Your task to perform on an android device: Open location settings Image 0: 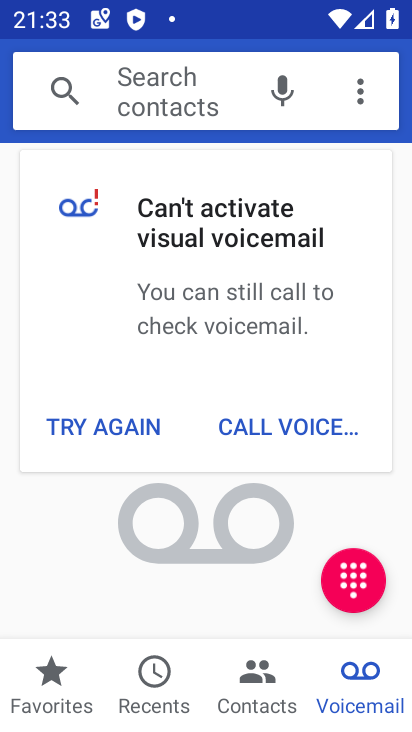
Step 0: press home button
Your task to perform on an android device: Open location settings Image 1: 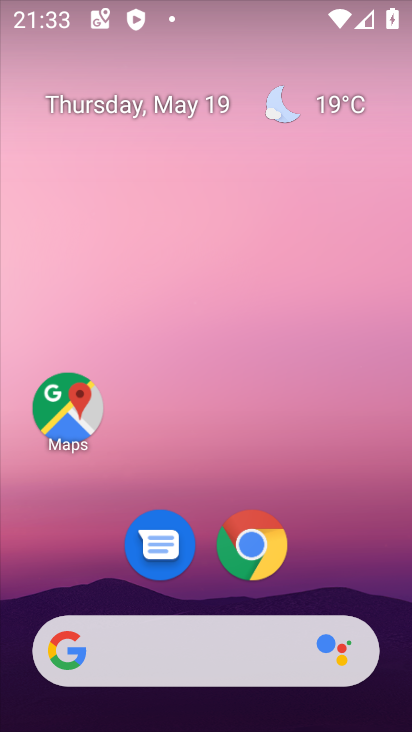
Step 1: drag from (371, 540) to (216, 73)
Your task to perform on an android device: Open location settings Image 2: 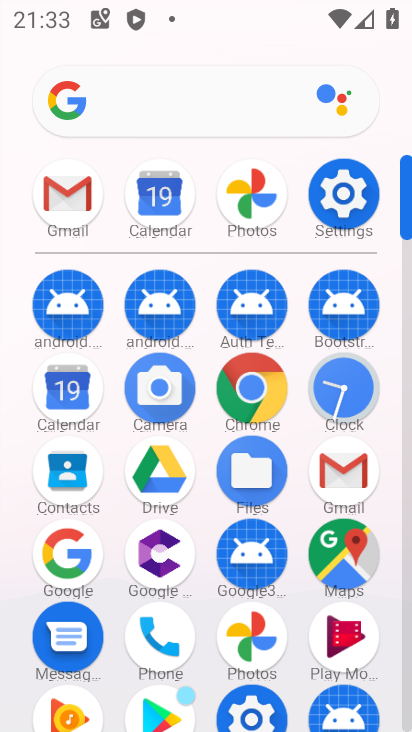
Step 2: click (357, 212)
Your task to perform on an android device: Open location settings Image 3: 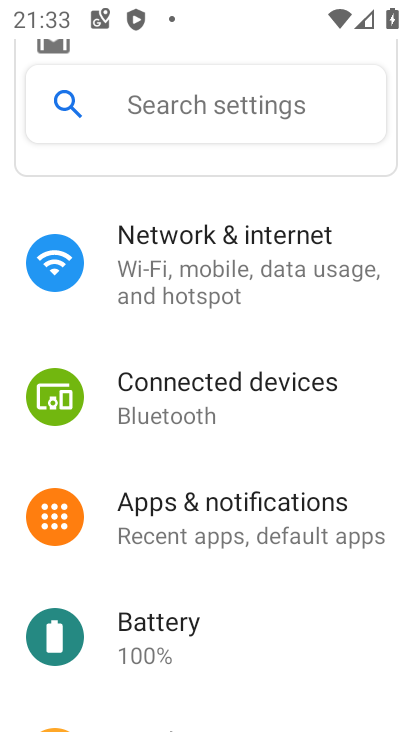
Step 3: drag from (151, 568) to (158, 294)
Your task to perform on an android device: Open location settings Image 4: 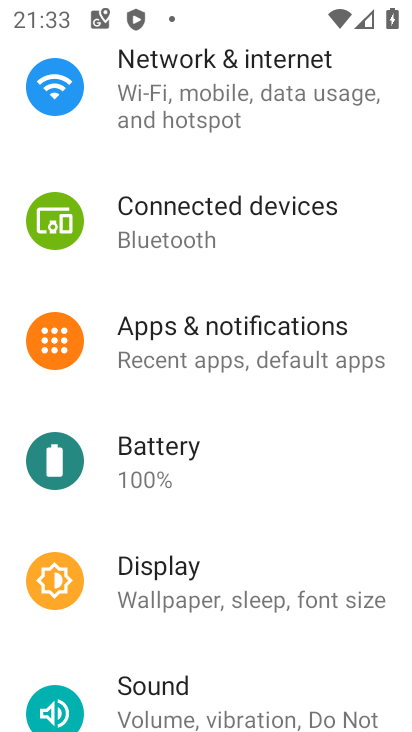
Step 4: drag from (218, 629) to (252, 325)
Your task to perform on an android device: Open location settings Image 5: 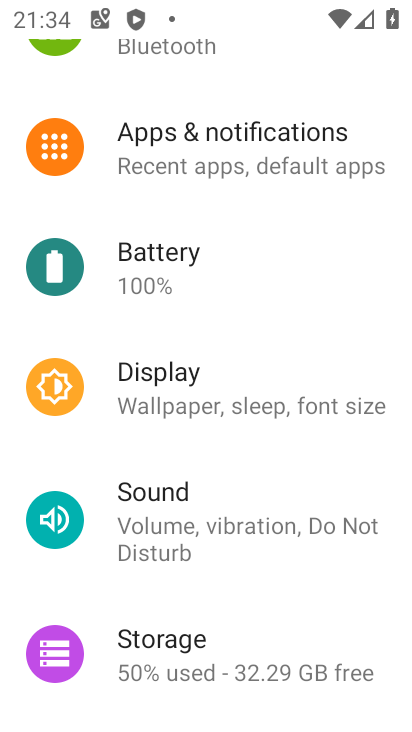
Step 5: drag from (229, 696) to (237, 418)
Your task to perform on an android device: Open location settings Image 6: 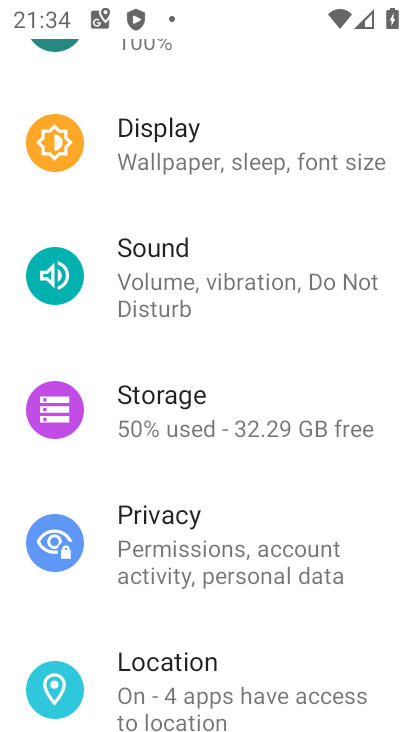
Step 6: click (211, 683)
Your task to perform on an android device: Open location settings Image 7: 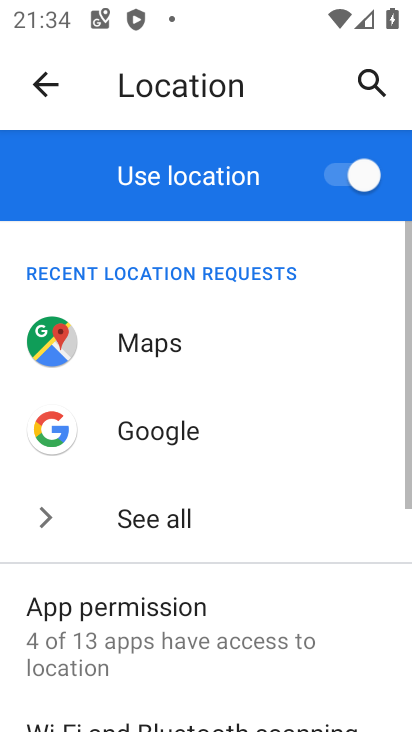
Step 7: task complete